Your task to perform on an android device: turn on airplane mode Image 0: 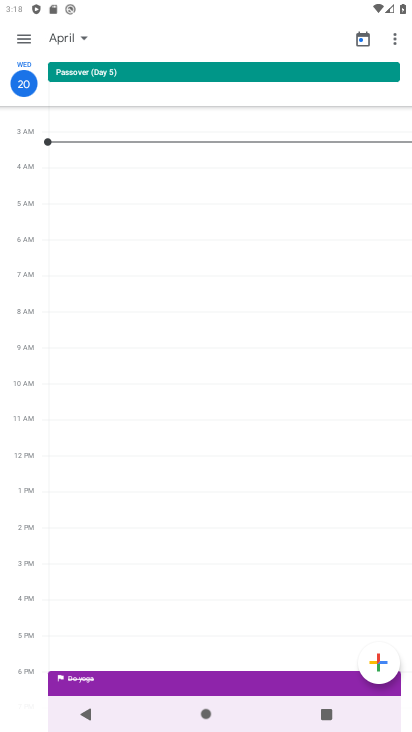
Step 0: press home button
Your task to perform on an android device: turn on airplane mode Image 1: 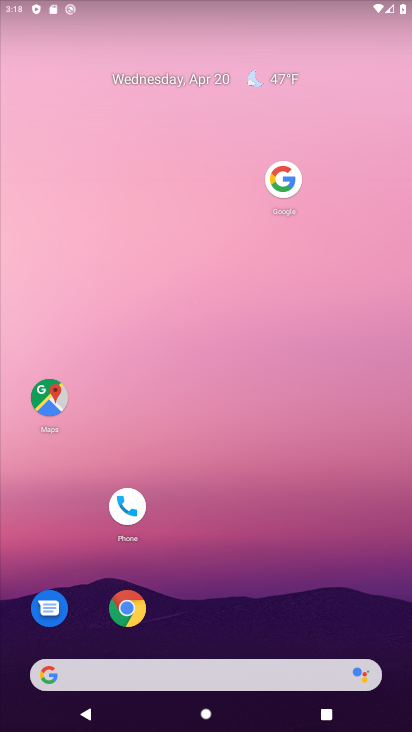
Step 1: drag from (196, 8) to (242, 506)
Your task to perform on an android device: turn on airplane mode Image 2: 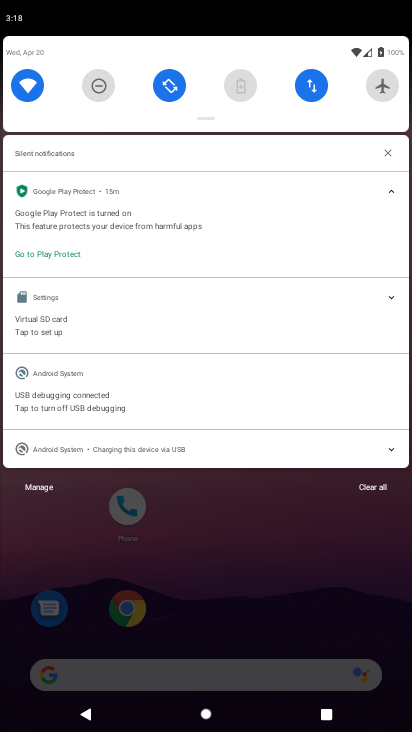
Step 2: click (378, 73)
Your task to perform on an android device: turn on airplane mode Image 3: 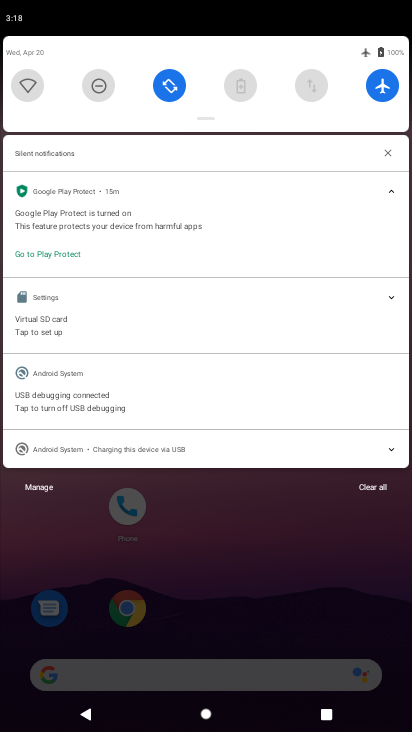
Step 3: task complete